Your task to perform on an android device: toggle pop-ups in chrome Image 0: 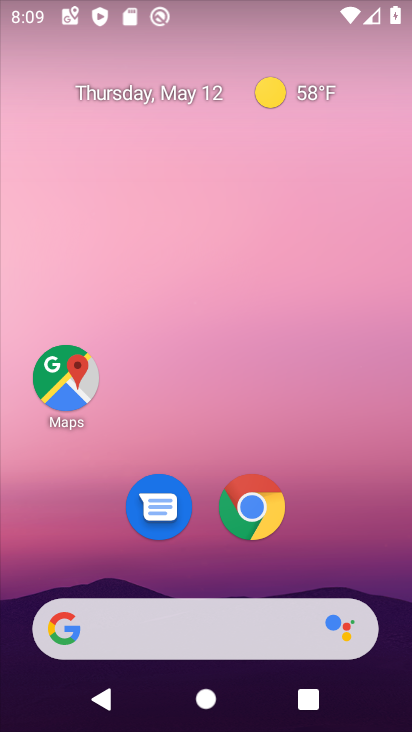
Step 0: click (269, 482)
Your task to perform on an android device: toggle pop-ups in chrome Image 1: 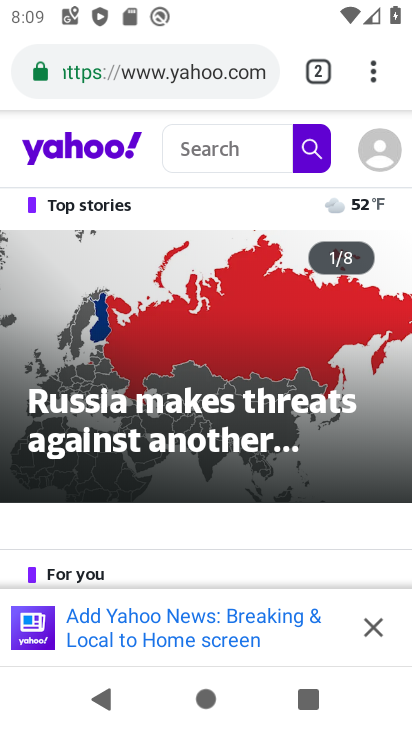
Step 1: drag from (371, 70) to (128, 490)
Your task to perform on an android device: toggle pop-ups in chrome Image 2: 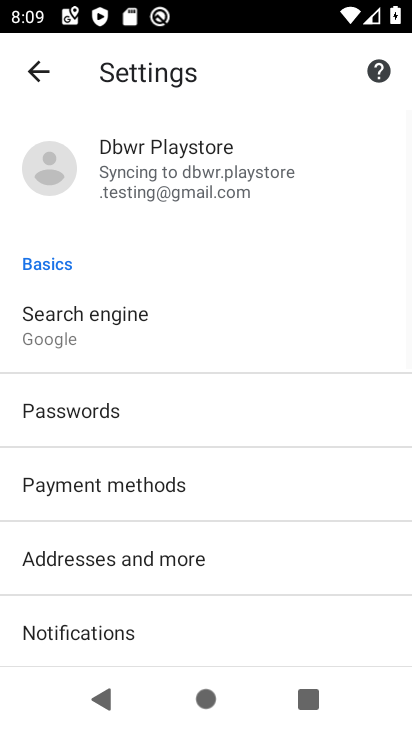
Step 2: drag from (172, 572) to (196, 351)
Your task to perform on an android device: toggle pop-ups in chrome Image 3: 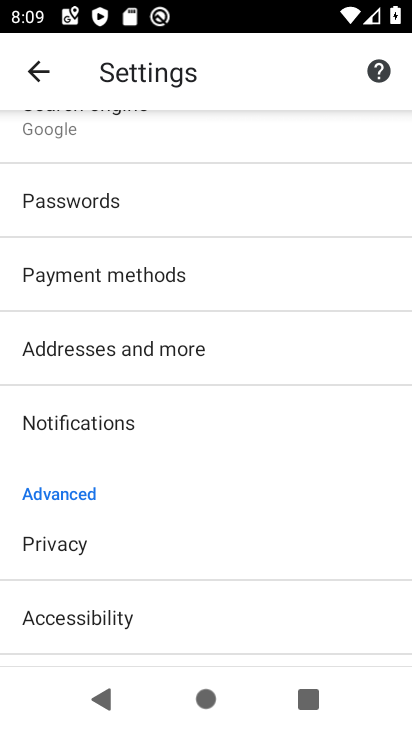
Step 3: drag from (222, 536) to (232, 361)
Your task to perform on an android device: toggle pop-ups in chrome Image 4: 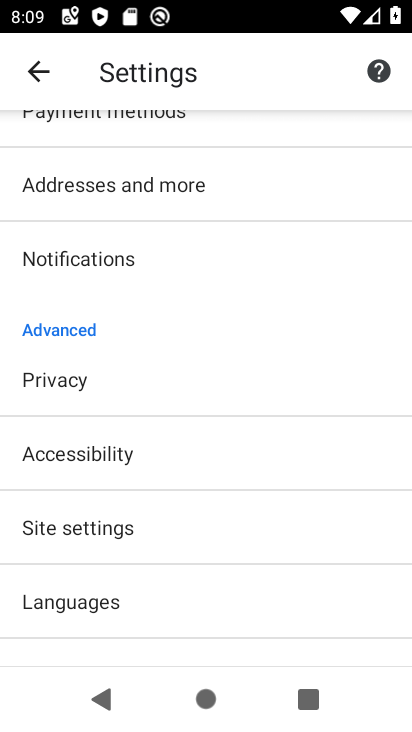
Step 4: drag from (201, 585) to (199, 390)
Your task to perform on an android device: toggle pop-ups in chrome Image 5: 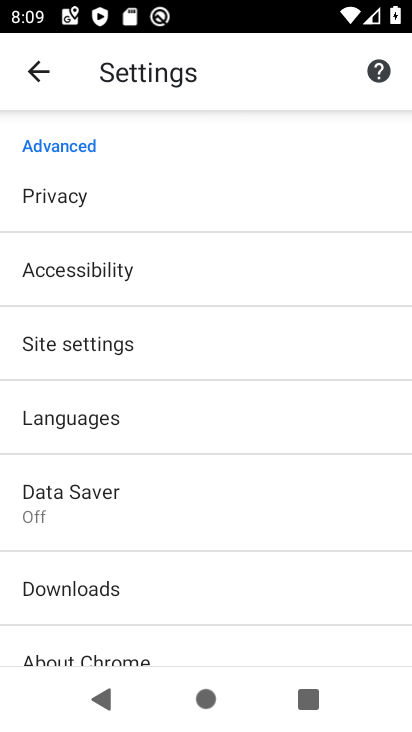
Step 5: click (129, 350)
Your task to perform on an android device: toggle pop-ups in chrome Image 6: 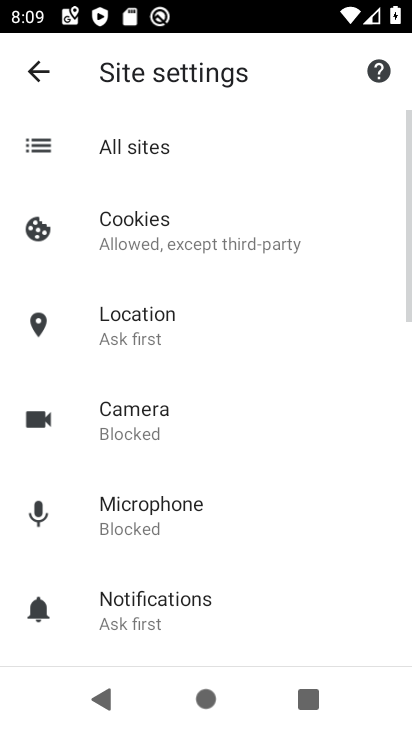
Step 6: drag from (211, 563) to (229, 296)
Your task to perform on an android device: toggle pop-ups in chrome Image 7: 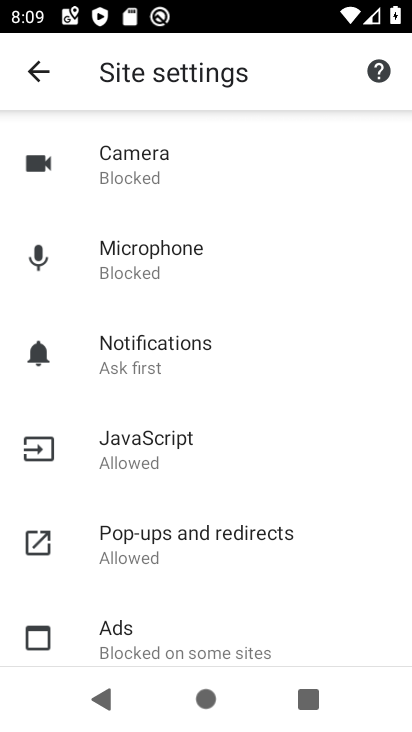
Step 7: drag from (189, 581) to (194, 389)
Your task to perform on an android device: toggle pop-ups in chrome Image 8: 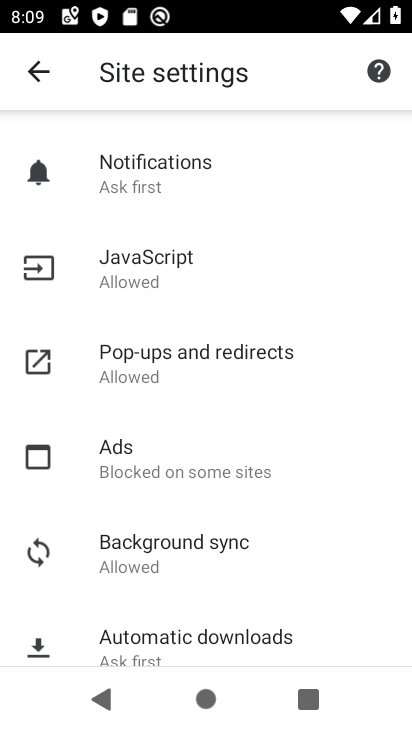
Step 8: click (189, 578)
Your task to perform on an android device: toggle pop-ups in chrome Image 9: 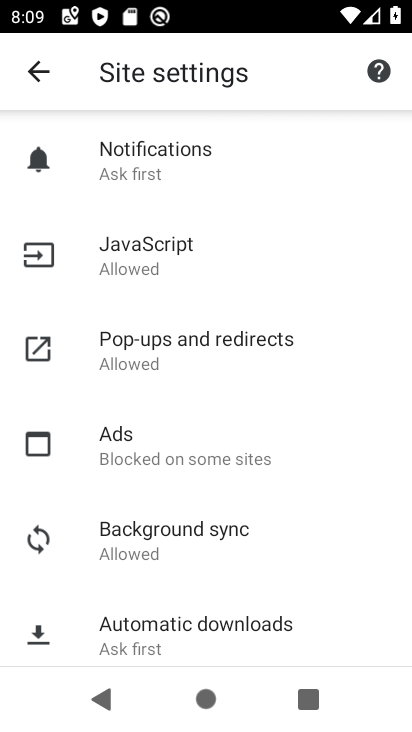
Step 9: click (184, 360)
Your task to perform on an android device: toggle pop-ups in chrome Image 10: 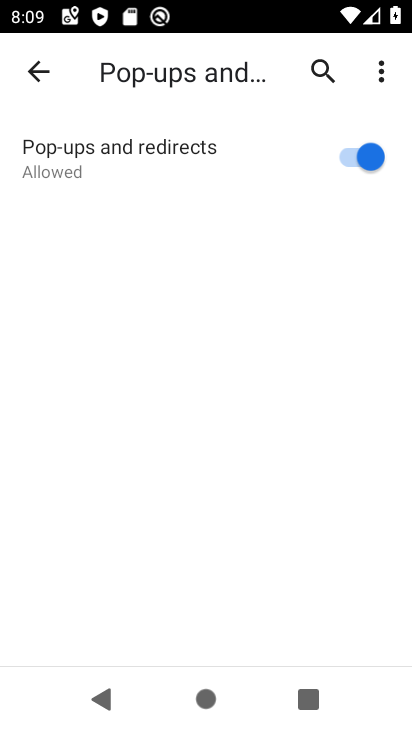
Step 10: task complete